Your task to perform on an android device: toggle improve location accuracy Image 0: 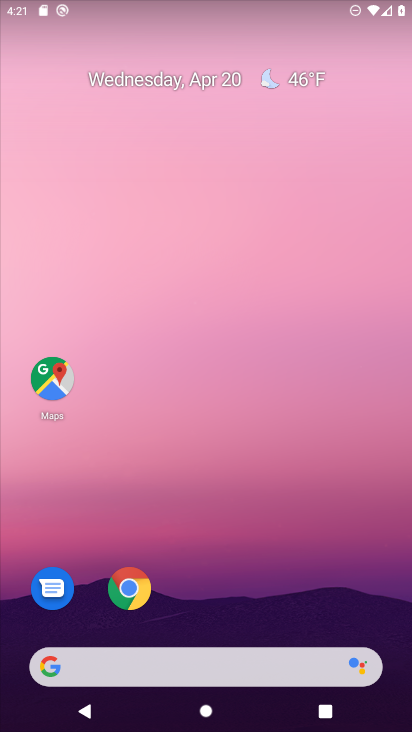
Step 0: drag from (212, 728) to (209, 29)
Your task to perform on an android device: toggle improve location accuracy Image 1: 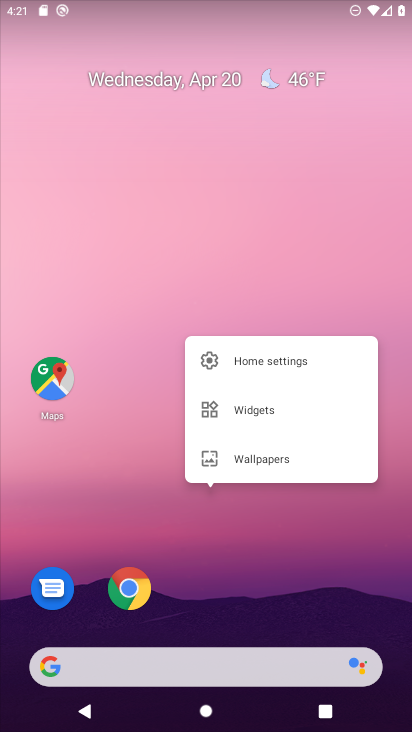
Step 1: click (181, 282)
Your task to perform on an android device: toggle improve location accuracy Image 2: 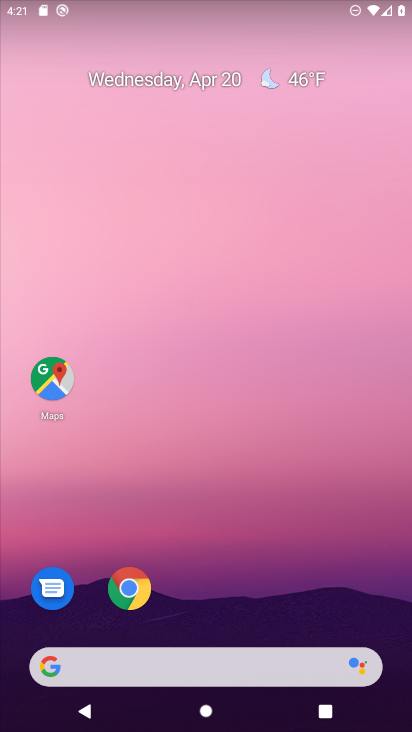
Step 2: drag from (215, 577) to (215, 191)
Your task to perform on an android device: toggle improve location accuracy Image 3: 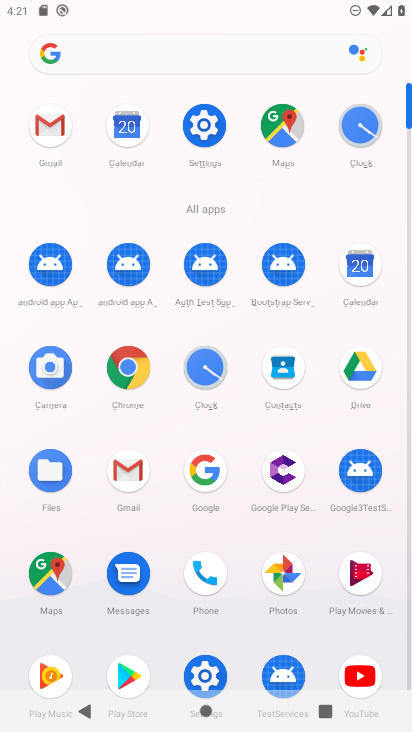
Step 3: click (202, 126)
Your task to perform on an android device: toggle improve location accuracy Image 4: 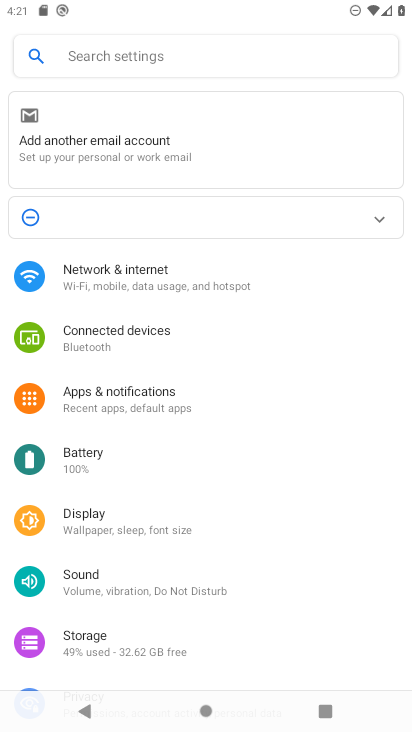
Step 4: drag from (113, 616) to (117, 403)
Your task to perform on an android device: toggle improve location accuracy Image 5: 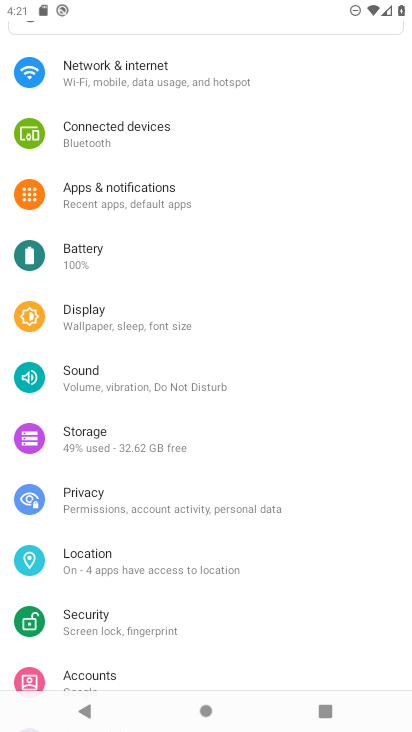
Step 5: click (96, 555)
Your task to perform on an android device: toggle improve location accuracy Image 6: 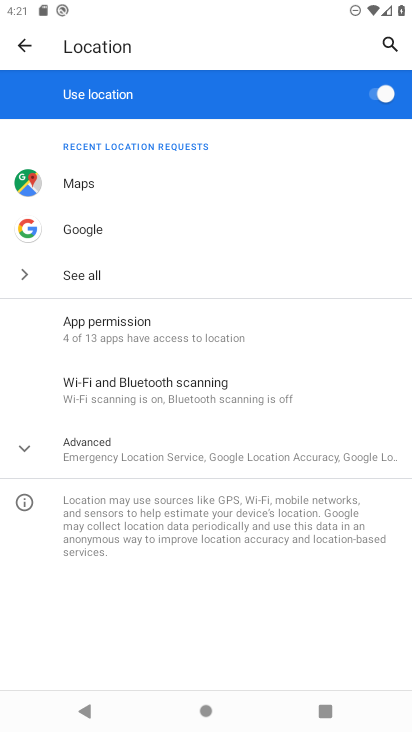
Step 6: click (105, 440)
Your task to perform on an android device: toggle improve location accuracy Image 7: 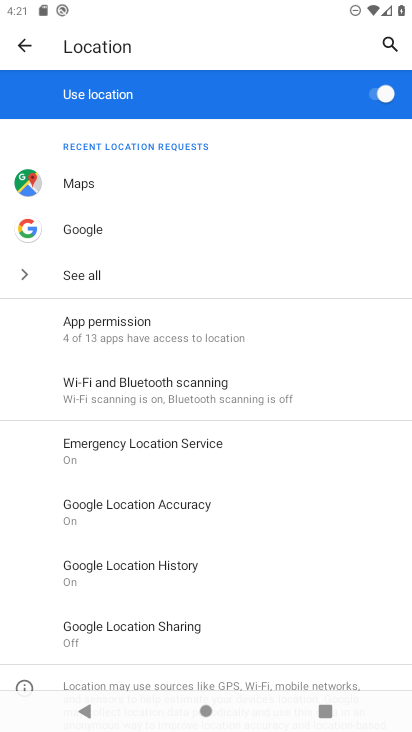
Step 7: click (171, 506)
Your task to perform on an android device: toggle improve location accuracy Image 8: 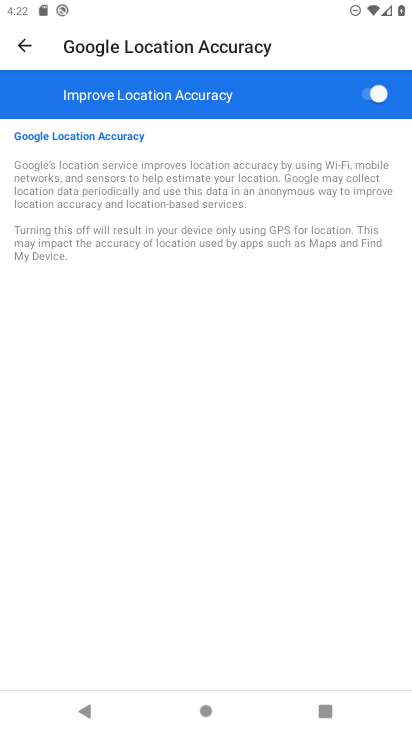
Step 8: click (368, 91)
Your task to perform on an android device: toggle improve location accuracy Image 9: 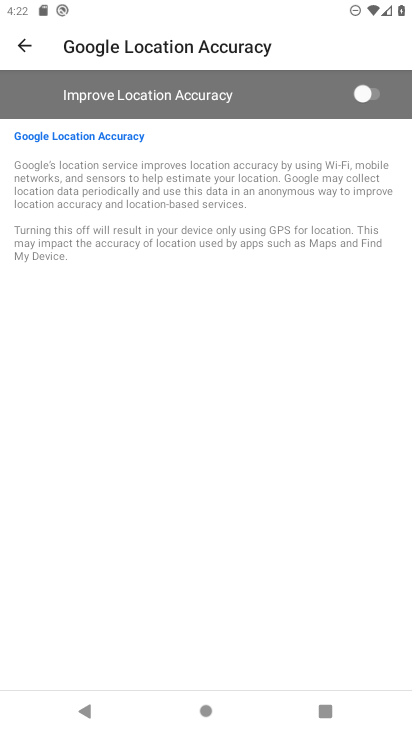
Step 9: task complete